Your task to perform on an android device: turn on the 12-hour format for clock Image 0: 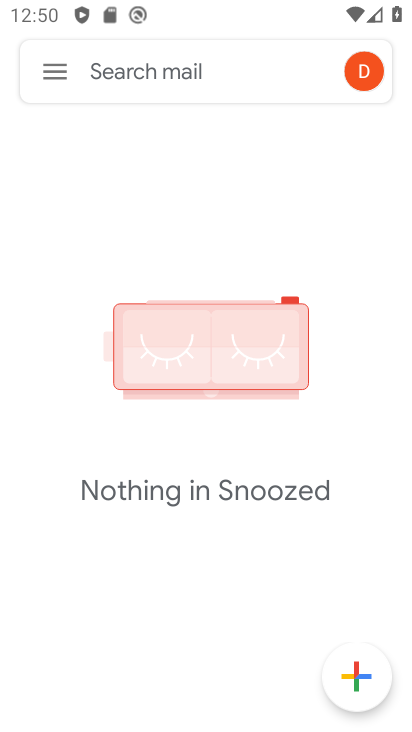
Step 0: press back button
Your task to perform on an android device: turn on the 12-hour format for clock Image 1: 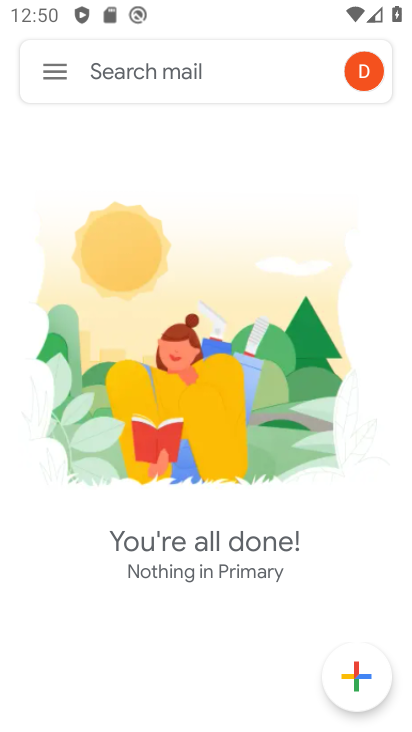
Step 1: press back button
Your task to perform on an android device: turn on the 12-hour format for clock Image 2: 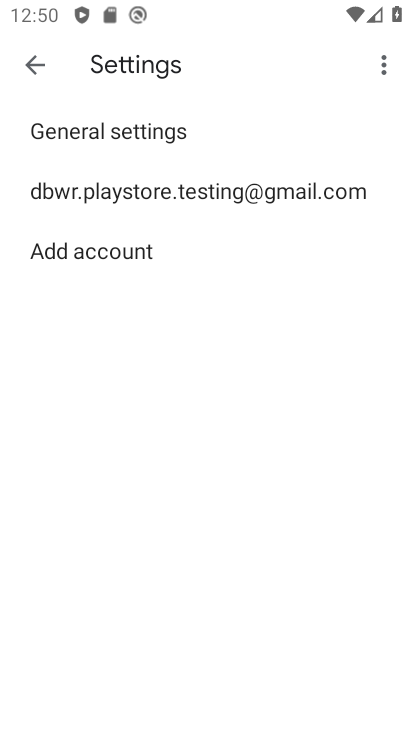
Step 2: press back button
Your task to perform on an android device: turn on the 12-hour format for clock Image 3: 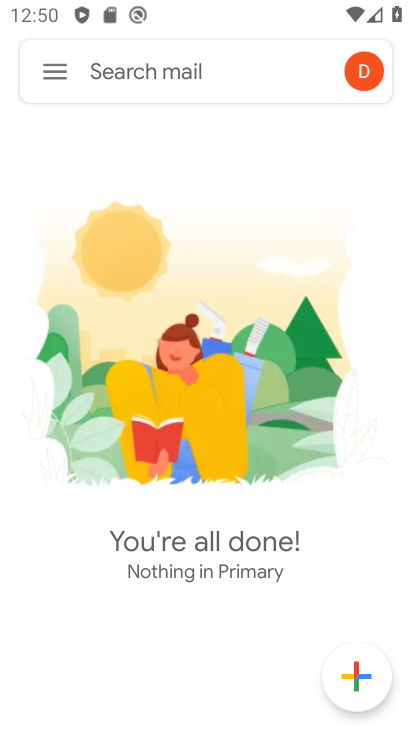
Step 3: press back button
Your task to perform on an android device: turn on the 12-hour format for clock Image 4: 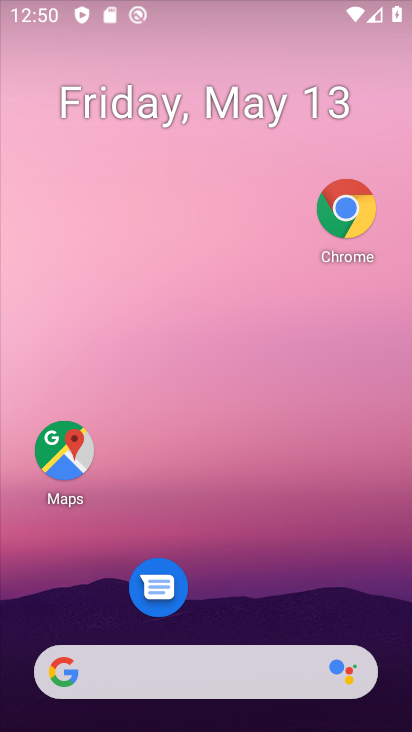
Step 4: drag from (285, 557) to (227, 45)
Your task to perform on an android device: turn on the 12-hour format for clock Image 5: 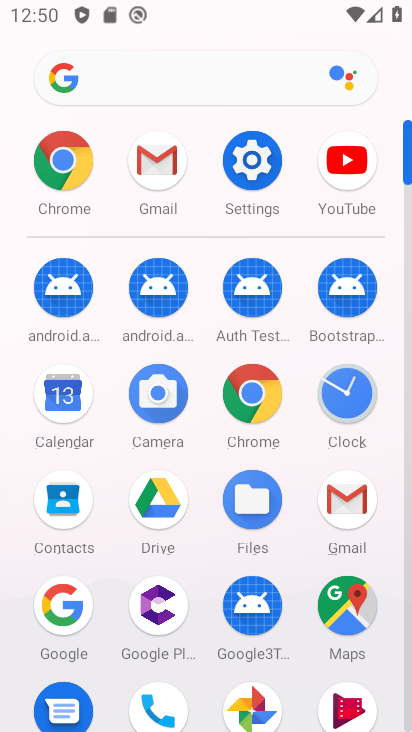
Step 5: click (345, 401)
Your task to perform on an android device: turn on the 12-hour format for clock Image 6: 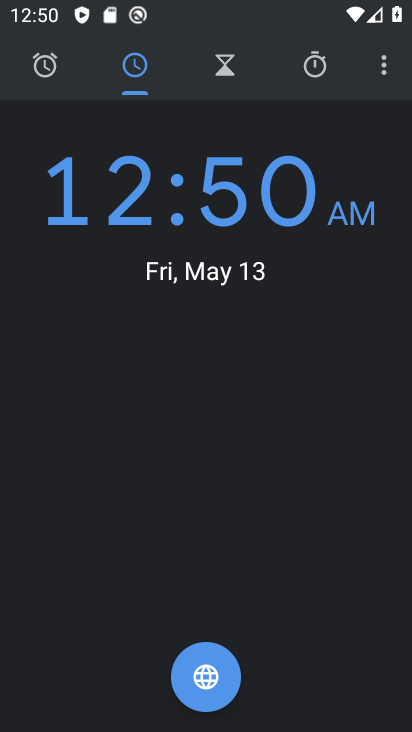
Step 6: click (385, 60)
Your task to perform on an android device: turn on the 12-hour format for clock Image 7: 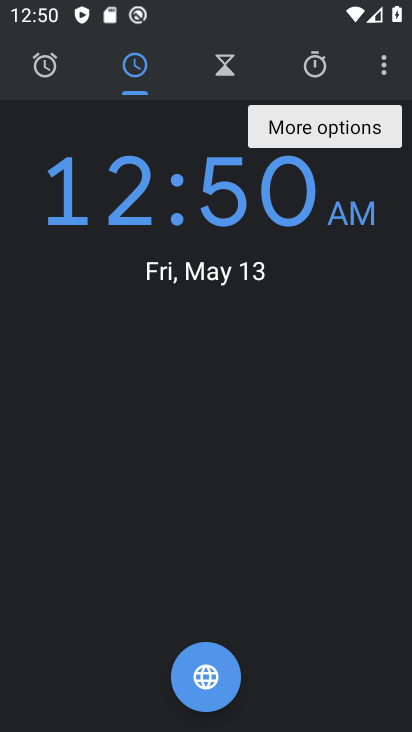
Step 7: click (390, 54)
Your task to perform on an android device: turn on the 12-hour format for clock Image 8: 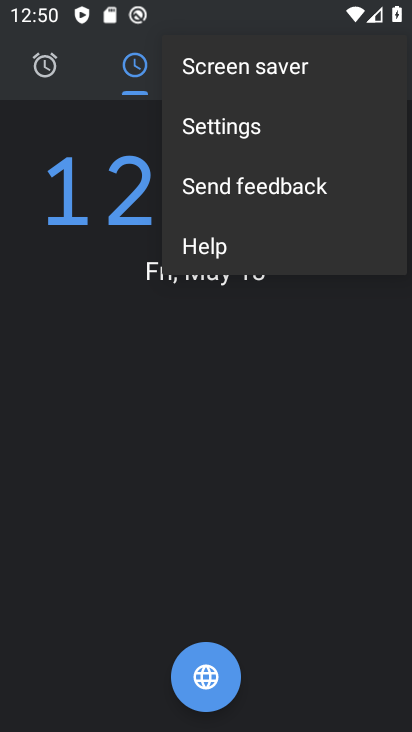
Step 8: click (243, 127)
Your task to perform on an android device: turn on the 12-hour format for clock Image 9: 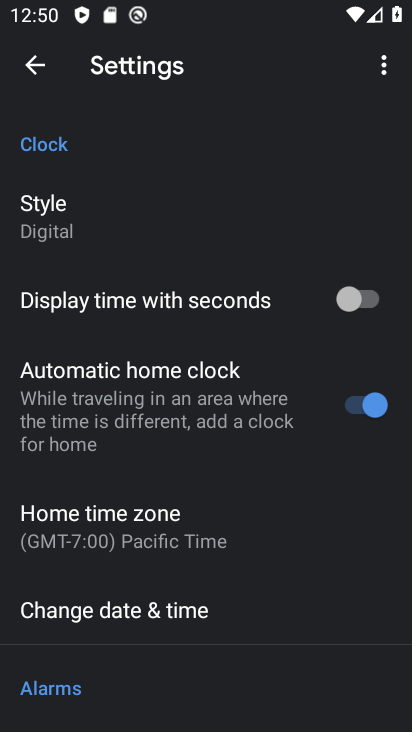
Step 9: click (109, 610)
Your task to perform on an android device: turn on the 12-hour format for clock Image 10: 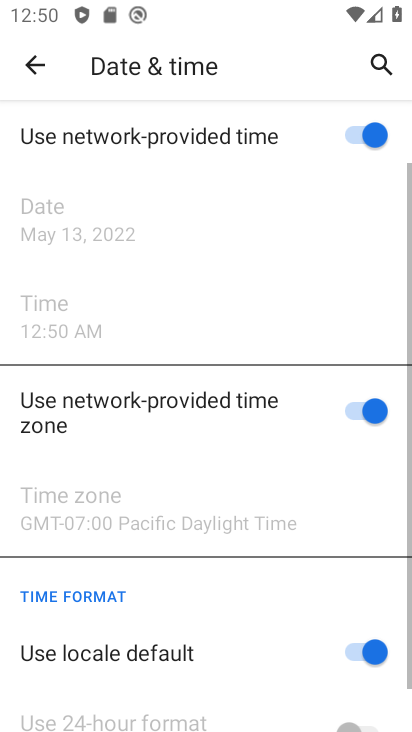
Step 10: drag from (197, 620) to (220, 198)
Your task to perform on an android device: turn on the 12-hour format for clock Image 11: 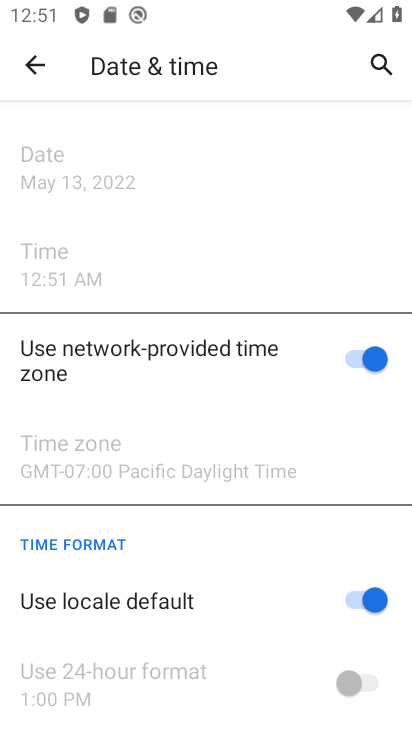
Step 11: click (379, 598)
Your task to perform on an android device: turn on the 12-hour format for clock Image 12: 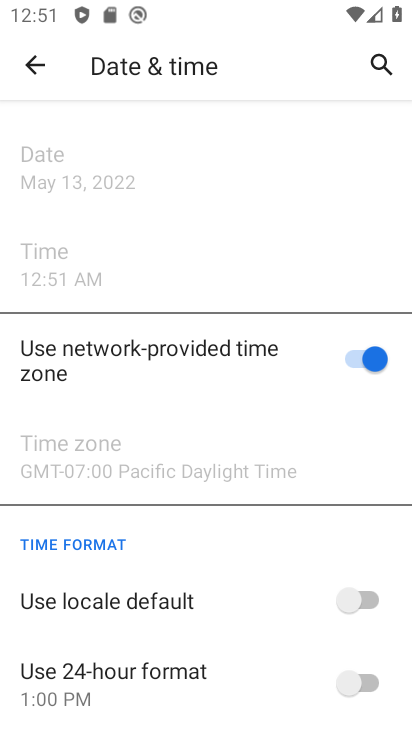
Step 12: click (358, 597)
Your task to perform on an android device: turn on the 12-hour format for clock Image 13: 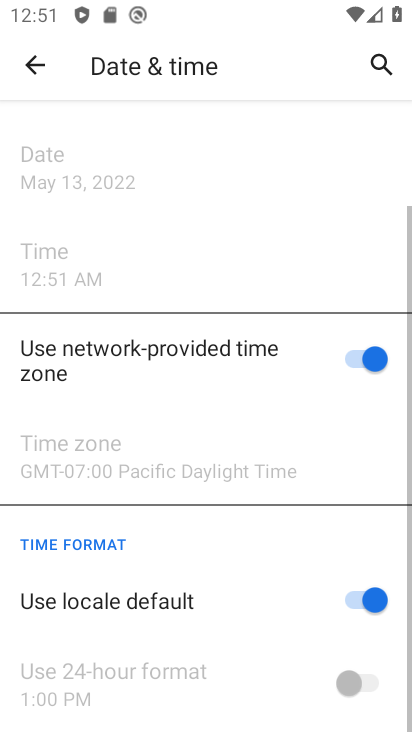
Step 13: task complete